Your task to perform on an android device: set default search engine in the chrome app Image 0: 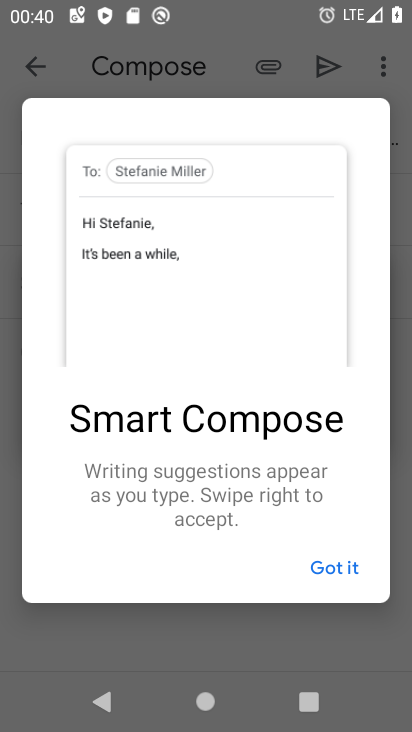
Step 0: press home button
Your task to perform on an android device: set default search engine in the chrome app Image 1: 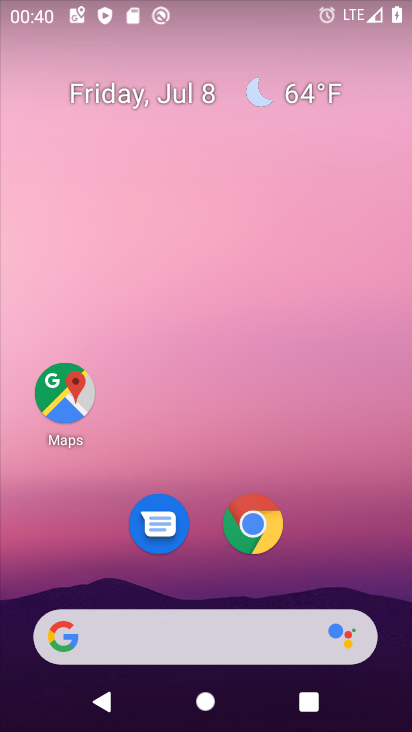
Step 1: click (257, 533)
Your task to perform on an android device: set default search engine in the chrome app Image 2: 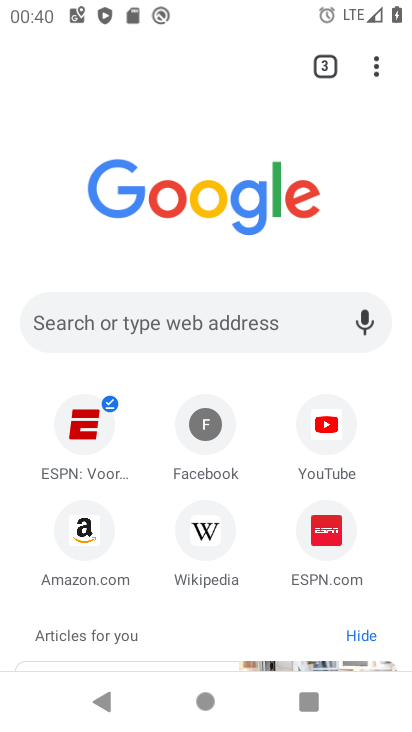
Step 2: click (371, 64)
Your task to perform on an android device: set default search engine in the chrome app Image 3: 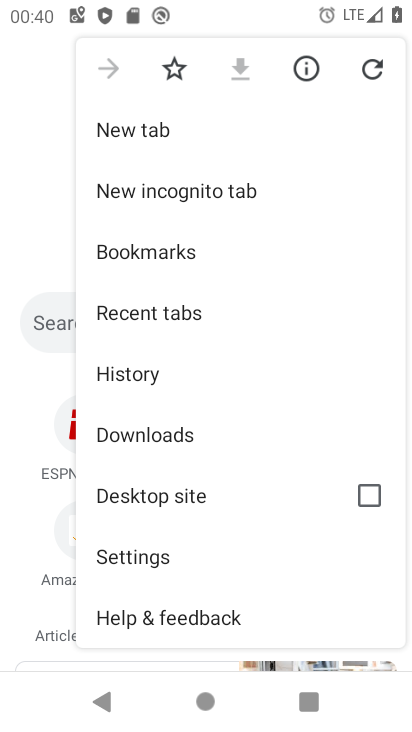
Step 3: click (178, 552)
Your task to perform on an android device: set default search engine in the chrome app Image 4: 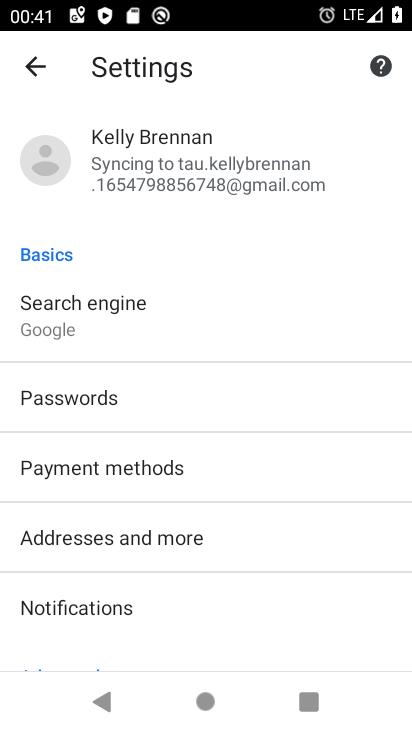
Step 4: click (122, 309)
Your task to perform on an android device: set default search engine in the chrome app Image 5: 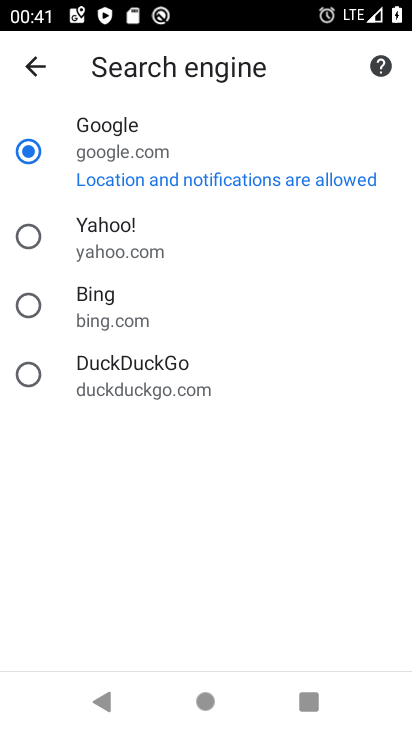
Step 5: task complete